Your task to perform on an android device: turn pop-ups off in chrome Image 0: 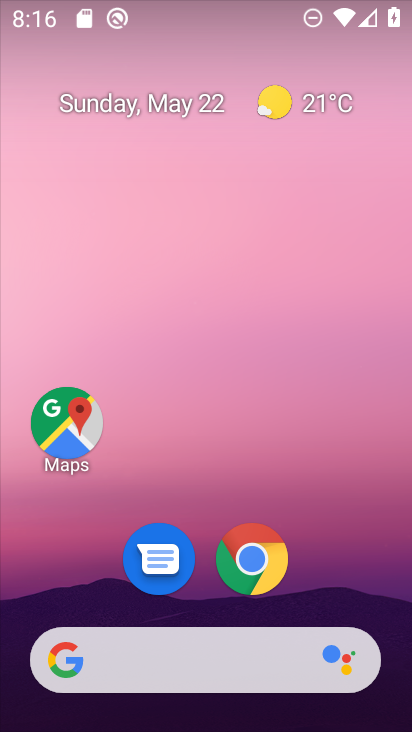
Step 0: drag from (275, 690) to (263, 277)
Your task to perform on an android device: turn pop-ups off in chrome Image 1: 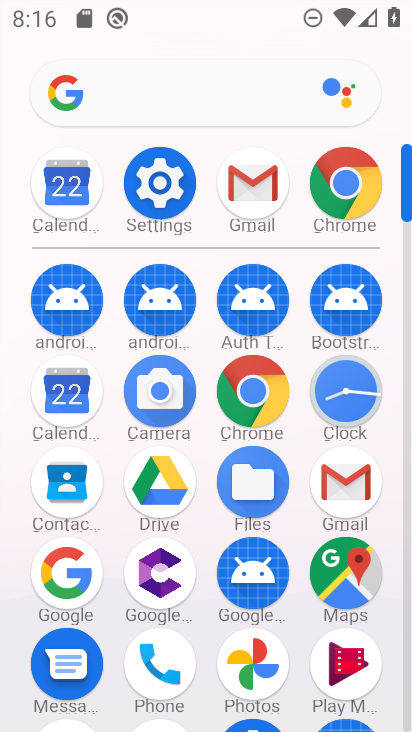
Step 1: click (343, 188)
Your task to perform on an android device: turn pop-ups off in chrome Image 2: 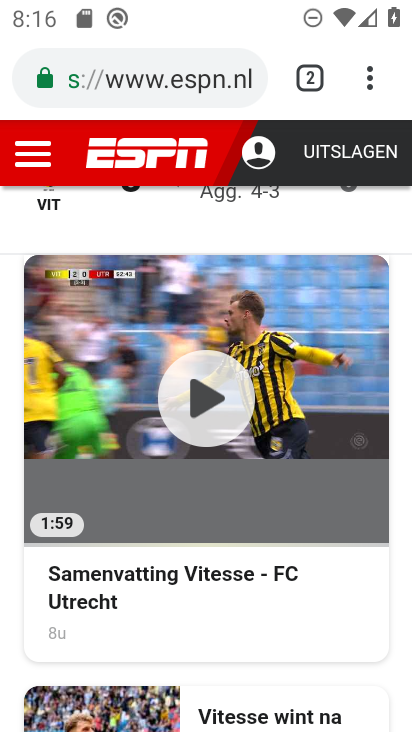
Step 2: click (381, 86)
Your task to perform on an android device: turn pop-ups off in chrome Image 3: 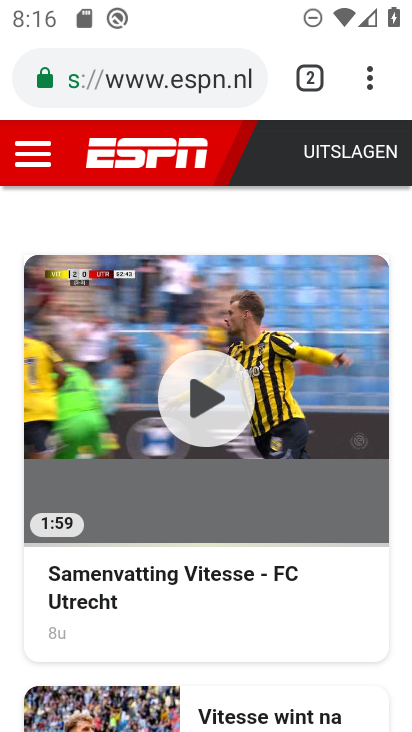
Step 3: click (360, 88)
Your task to perform on an android device: turn pop-ups off in chrome Image 4: 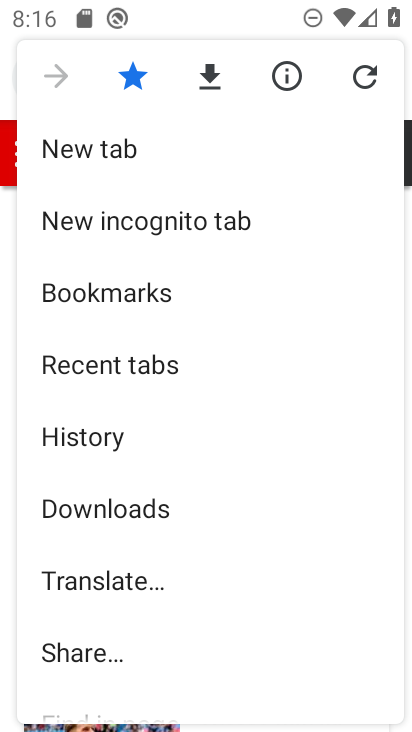
Step 4: drag from (188, 542) to (177, 323)
Your task to perform on an android device: turn pop-ups off in chrome Image 5: 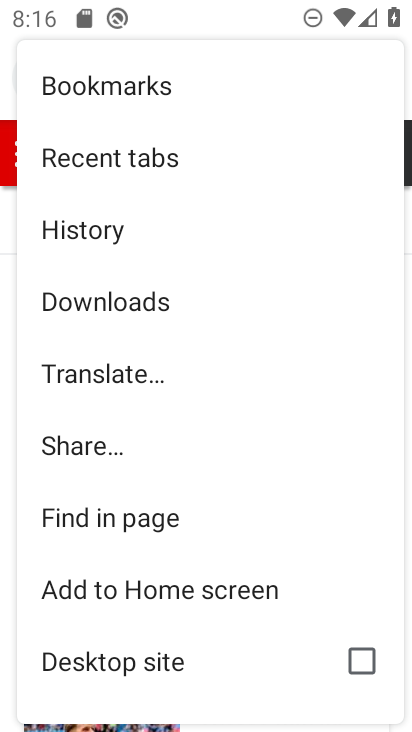
Step 5: drag from (153, 618) to (163, 406)
Your task to perform on an android device: turn pop-ups off in chrome Image 6: 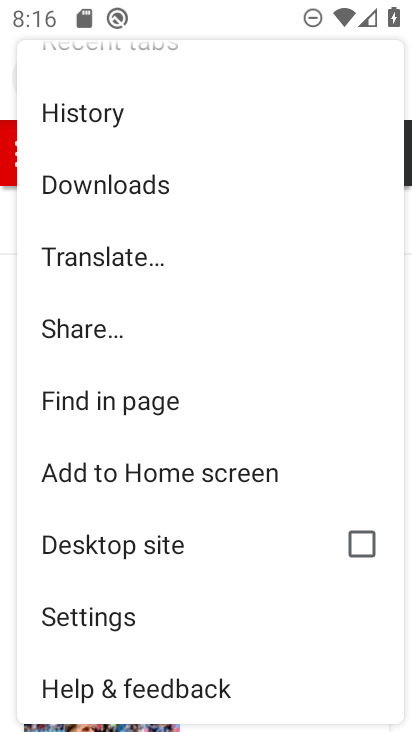
Step 6: click (125, 613)
Your task to perform on an android device: turn pop-ups off in chrome Image 7: 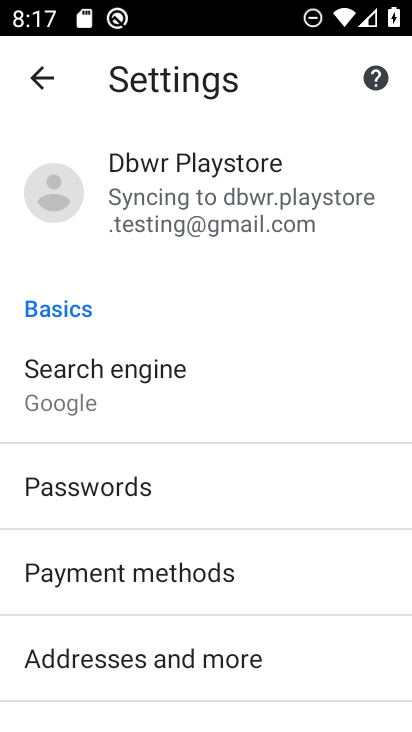
Step 7: drag from (210, 643) to (201, 356)
Your task to perform on an android device: turn pop-ups off in chrome Image 8: 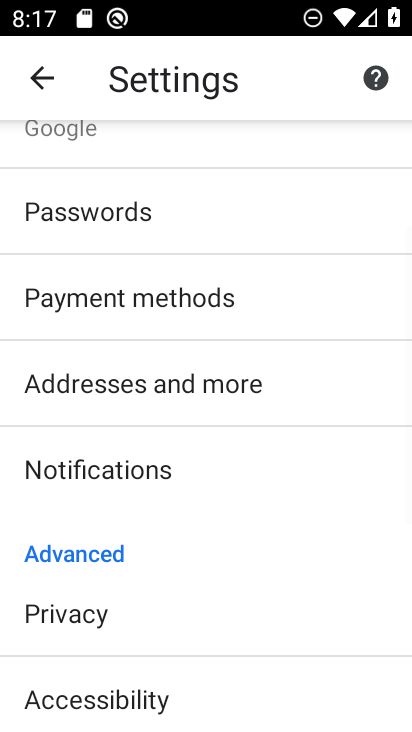
Step 8: drag from (204, 620) to (195, 428)
Your task to perform on an android device: turn pop-ups off in chrome Image 9: 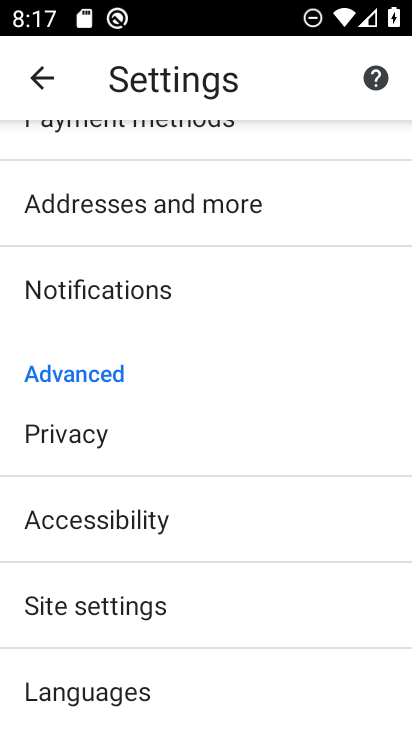
Step 9: click (174, 602)
Your task to perform on an android device: turn pop-ups off in chrome Image 10: 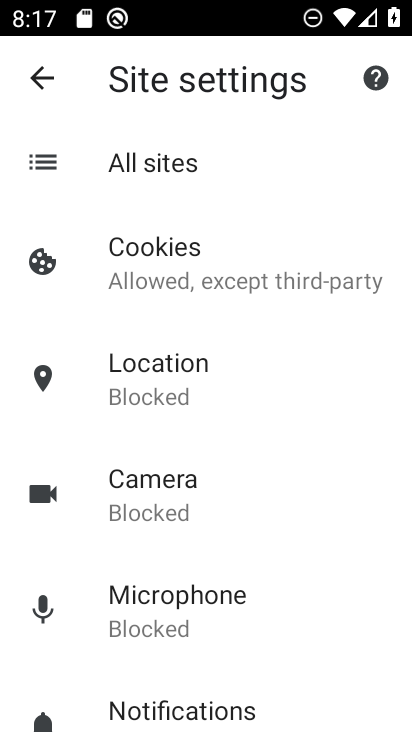
Step 10: drag from (199, 592) to (207, 431)
Your task to perform on an android device: turn pop-ups off in chrome Image 11: 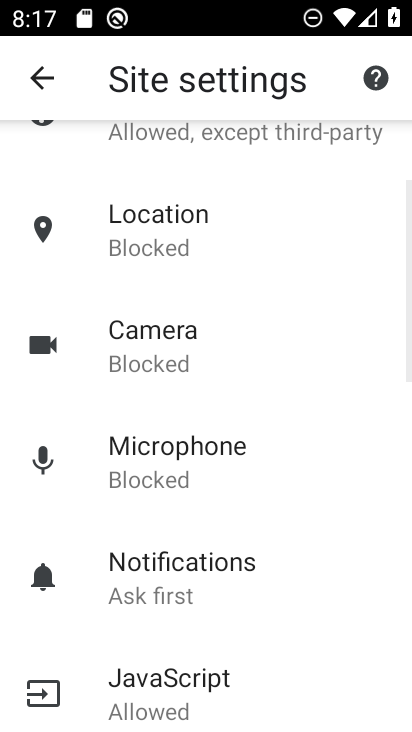
Step 11: drag from (189, 635) to (166, 418)
Your task to perform on an android device: turn pop-ups off in chrome Image 12: 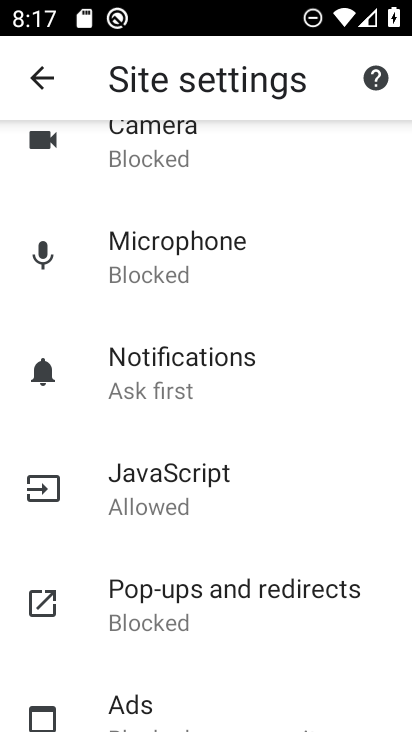
Step 12: click (201, 594)
Your task to perform on an android device: turn pop-ups off in chrome Image 13: 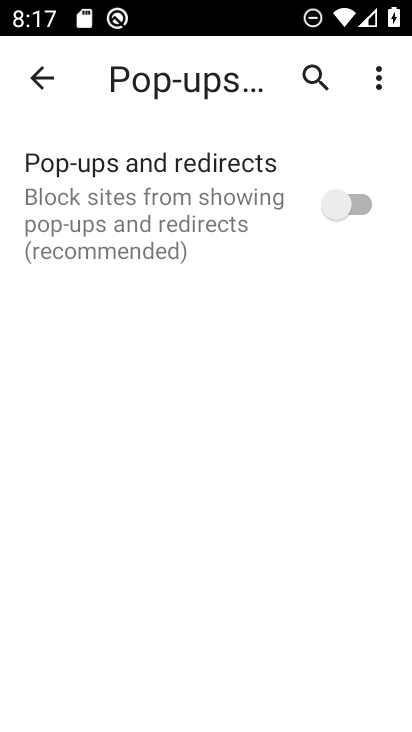
Step 13: click (348, 199)
Your task to perform on an android device: turn pop-ups off in chrome Image 14: 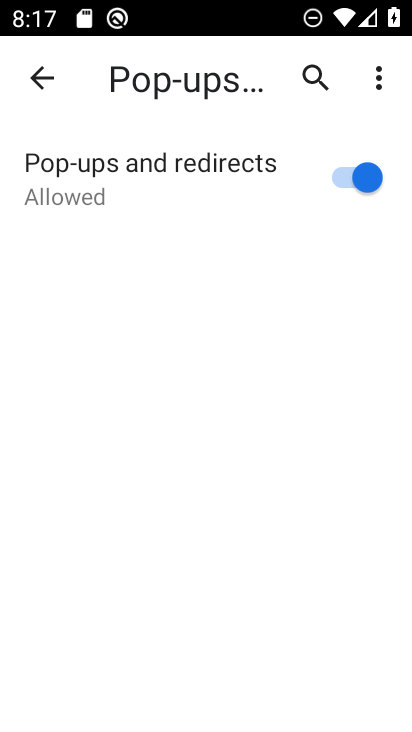
Step 14: click (346, 199)
Your task to perform on an android device: turn pop-ups off in chrome Image 15: 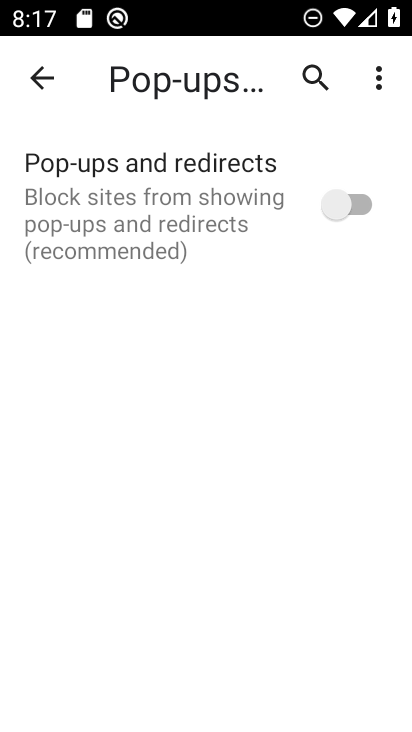
Step 15: task complete